Your task to perform on an android device: What's the weather today? Image 0: 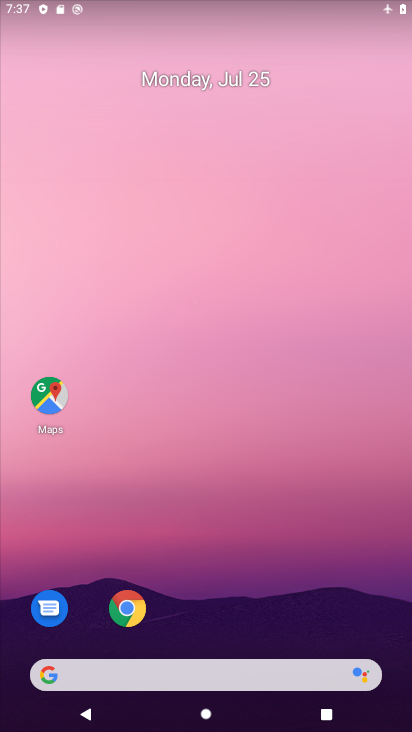
Step 0: drag from (281, 611) to (257, 69)
Your task to perform on an android device: What's the weather today? Image 1: 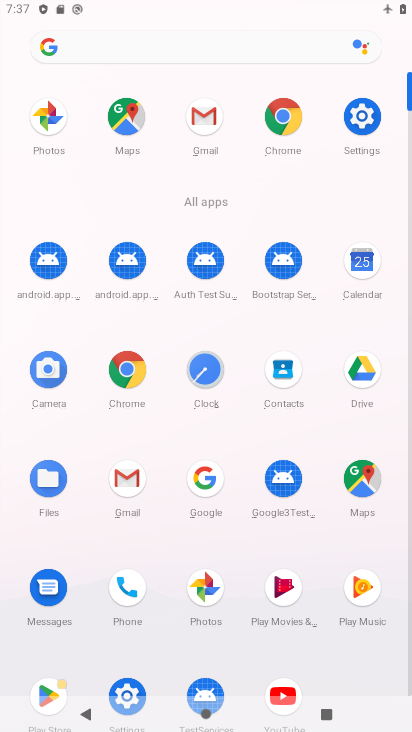
Step 1: click (285, 113)
Your task to perform on an android device: What's the weather today? Image 2: 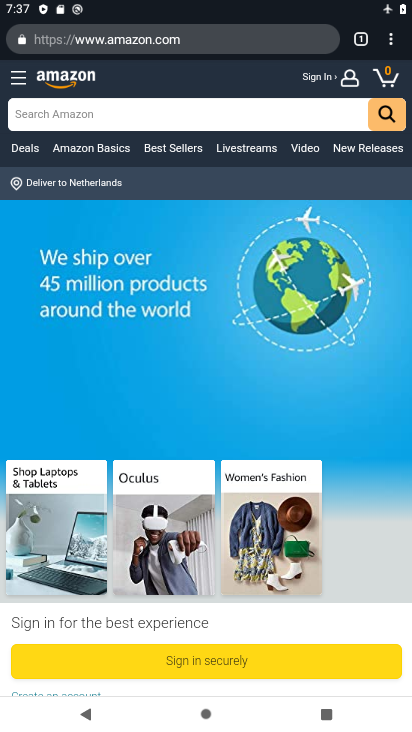
Step 2: click (201, 31)
Your task to perform on an android device: What's the weather today? Image 3: 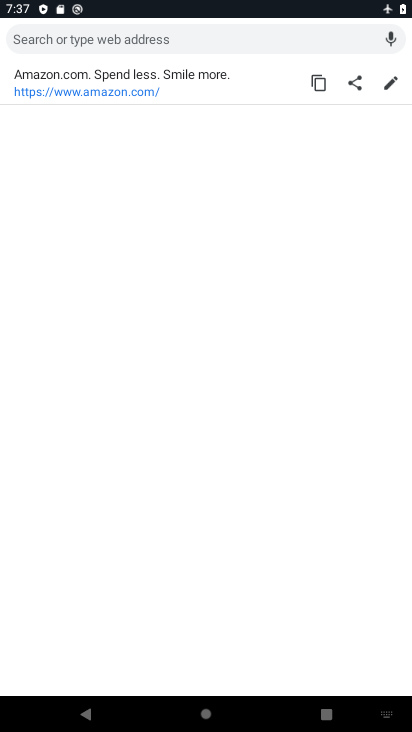
Step 3: type "weather"
Your task to perform on an android device: What's the weather today? Image 4: 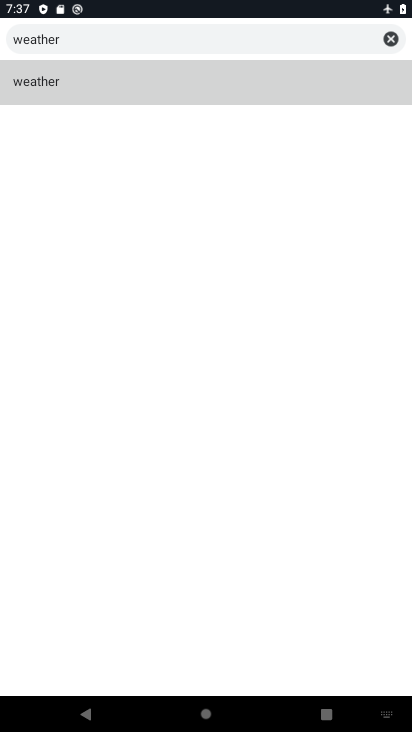
Step 4: click (32, 93)
Your task to perform on an android device: What's the weather today? Image 5: 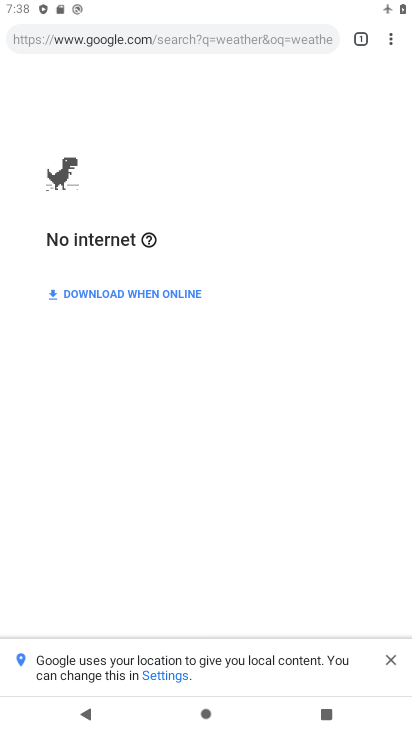
Step 5: task complete